Your task to perform on an android device: Is it going to rain today? Image 0: 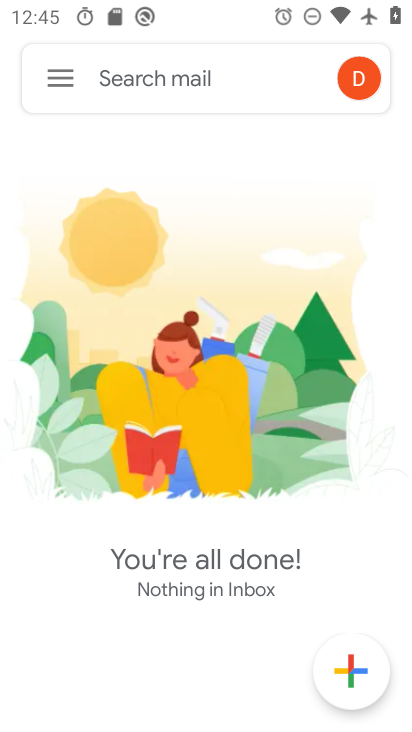
Step 0: press home button
Your task to perform on an android device: Is it going to rain today? Image 1: 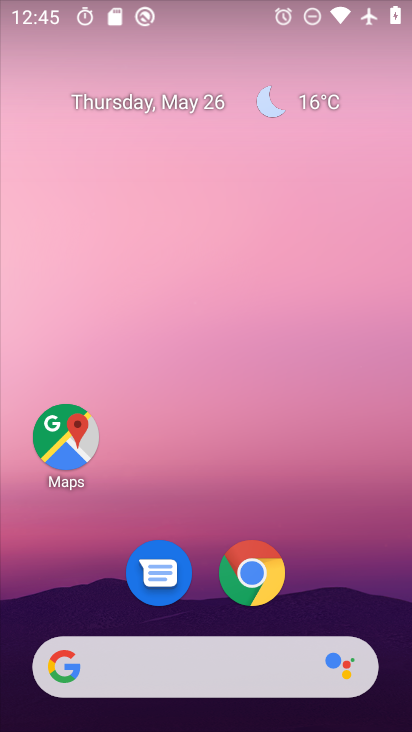
Step 1: click (312, 108)
Your task to perform on an android device: Is it going to rain today? Image 2: 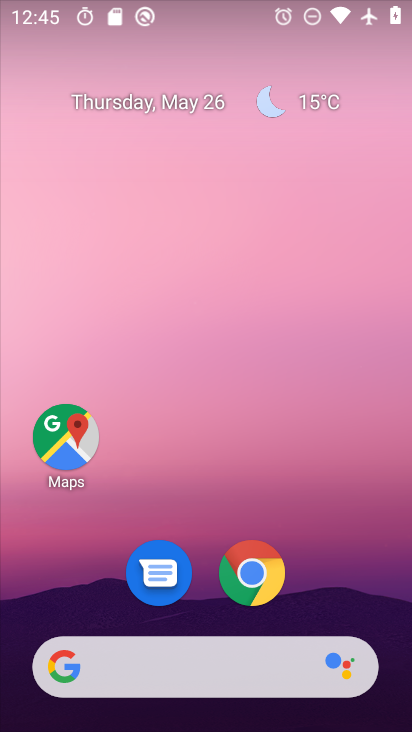
Step 2: click (326, 108)
Your task to perform on an android device: Is it going to rain today? Image 3: 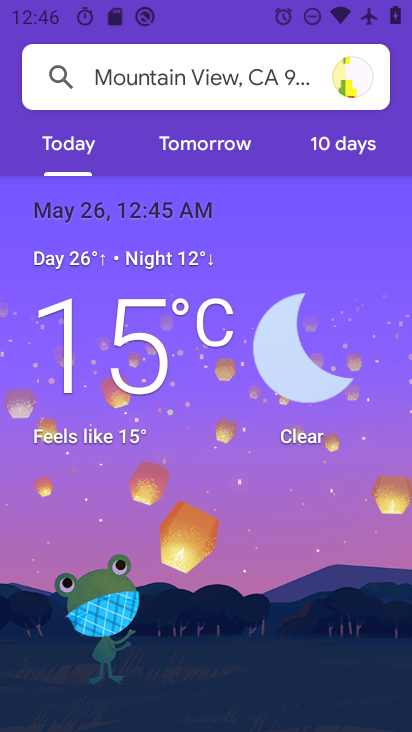
Step 3: task complete